Your task to perform on an android device: Add amazon basics triple a to the cart on target.com, then select checkout. Image 0: 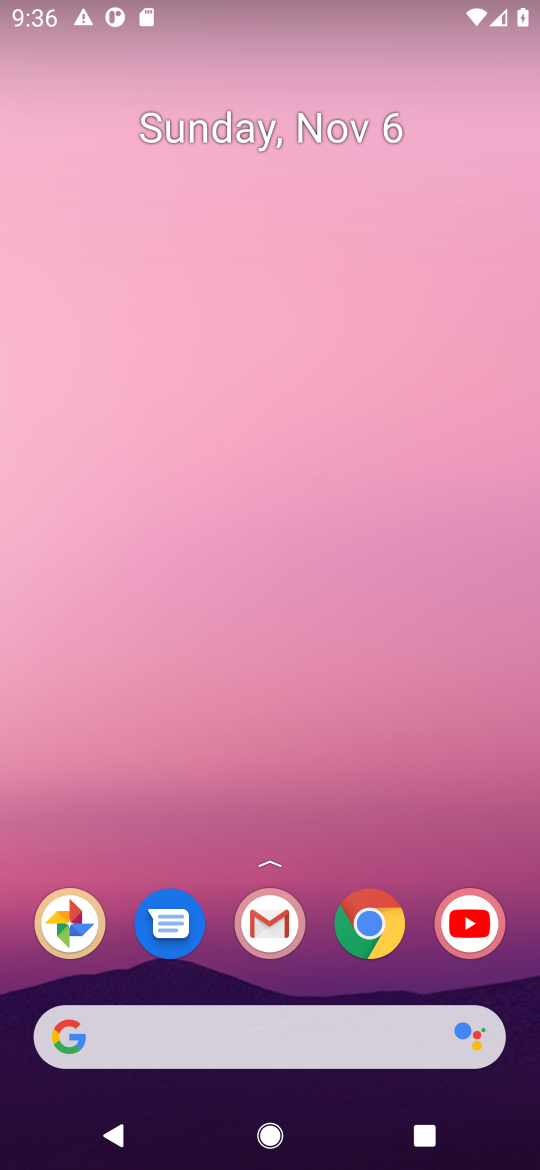
Step 0: click (377, 932)
Your task to perform on an android device: Add amazon basics triple a to the cart on target.com, then select checkout. Image 1: 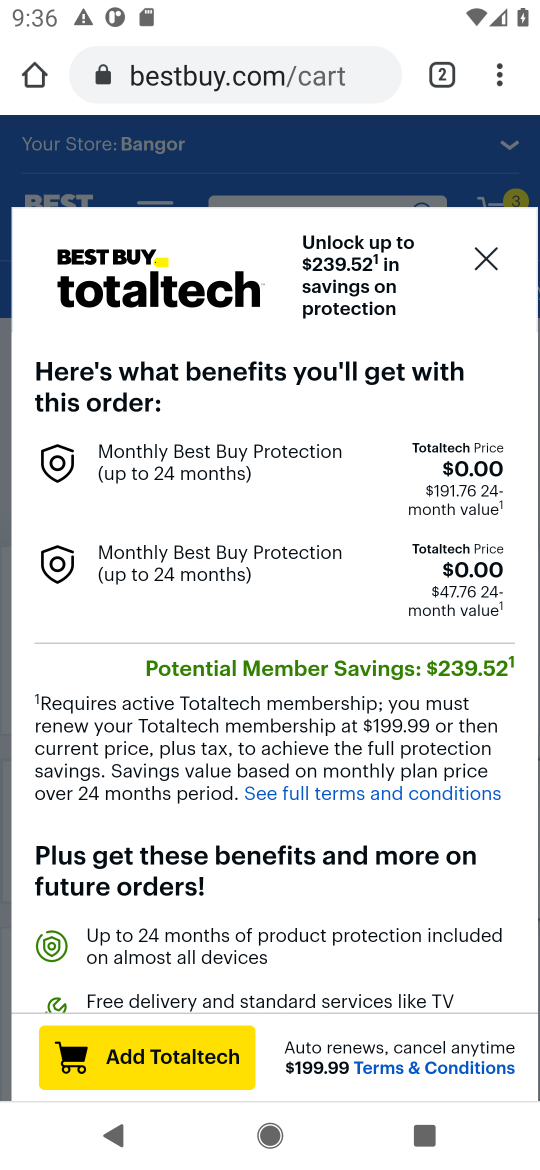
Step 1: click (203, 80)
Your task to perform on an android device: Add amazon basics triple a to the cart on target.com, then select checkout. Image 2: 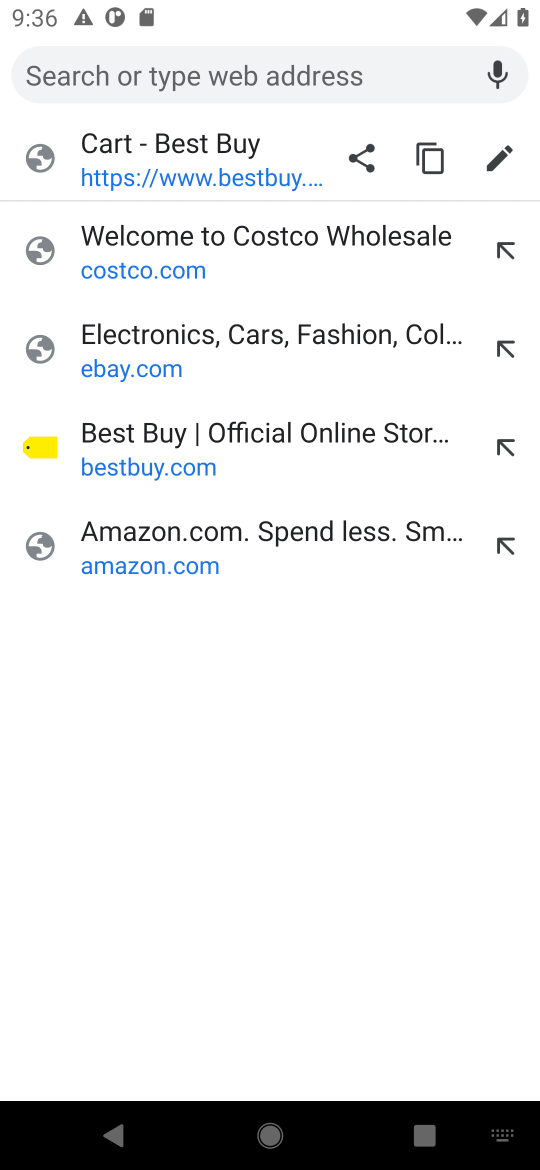
Step 2: type "target.com"
Your task to perform on an android device: Add amazon basics triple a to the cart on target.com, then select checkout. Image 3: 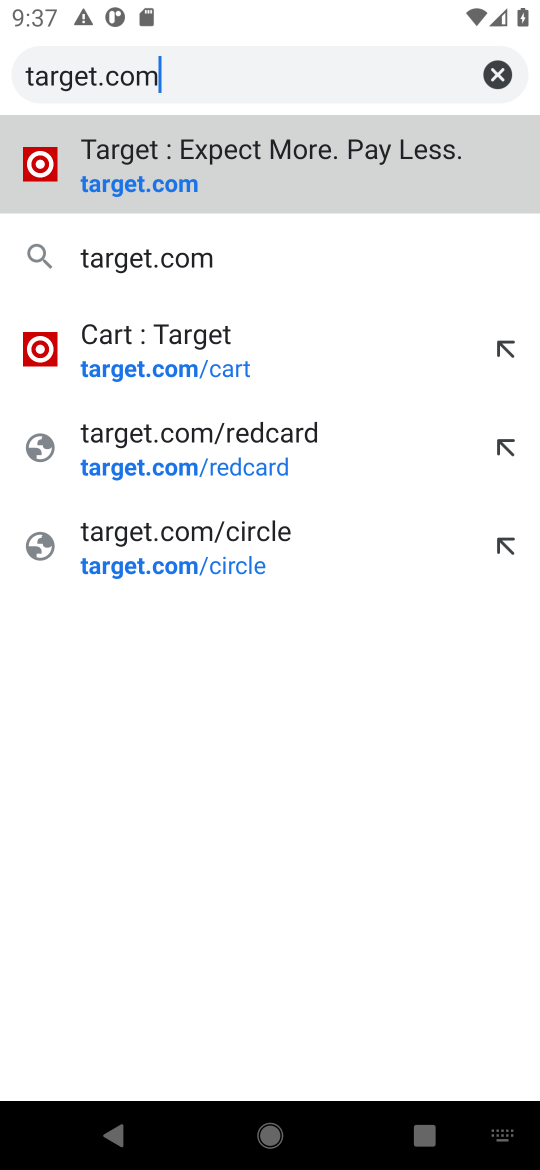
Step 3: click (133, 179)
Your task to perform on an android device: Add amazon basics triple a to the cart on target.com, then select checkout. Image 4: 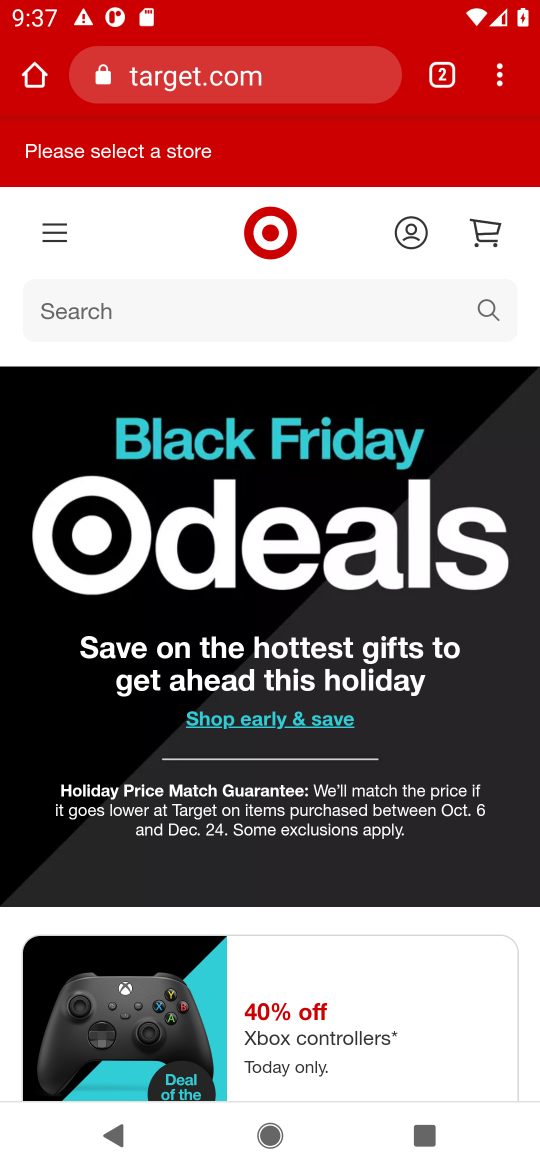
Step 4: click (488, 314)
Your task to perform on an android device: Add amazon basics triple a to the cart on target.com, then select checkout. Image 5: 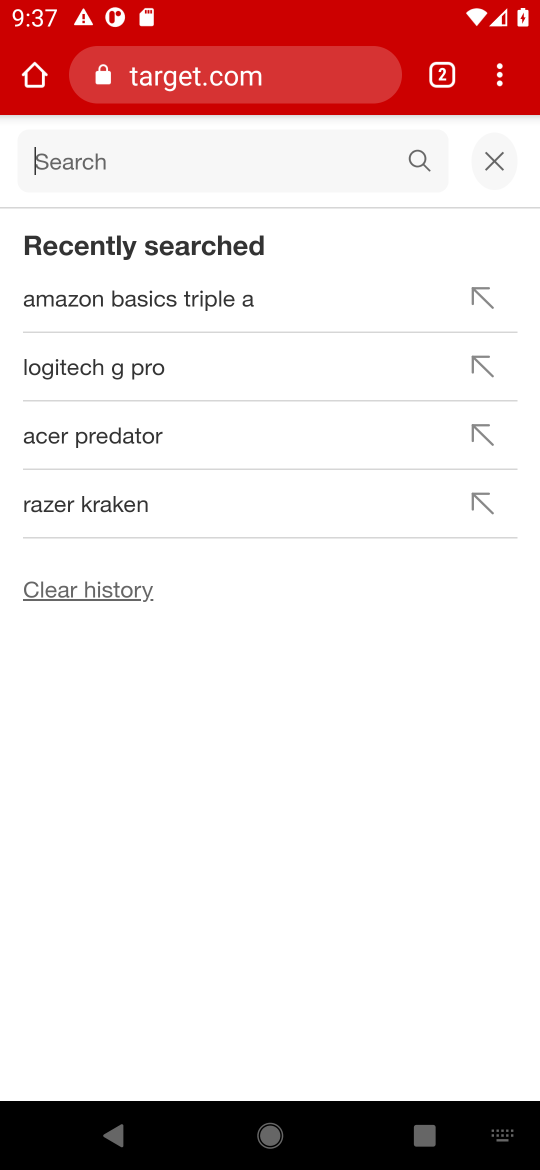
Step 5: type "amazon basics triple a"
Your task to perform on an android device: Add amazon basics triple a to the cart on target.com, then select checkout. Image 6: 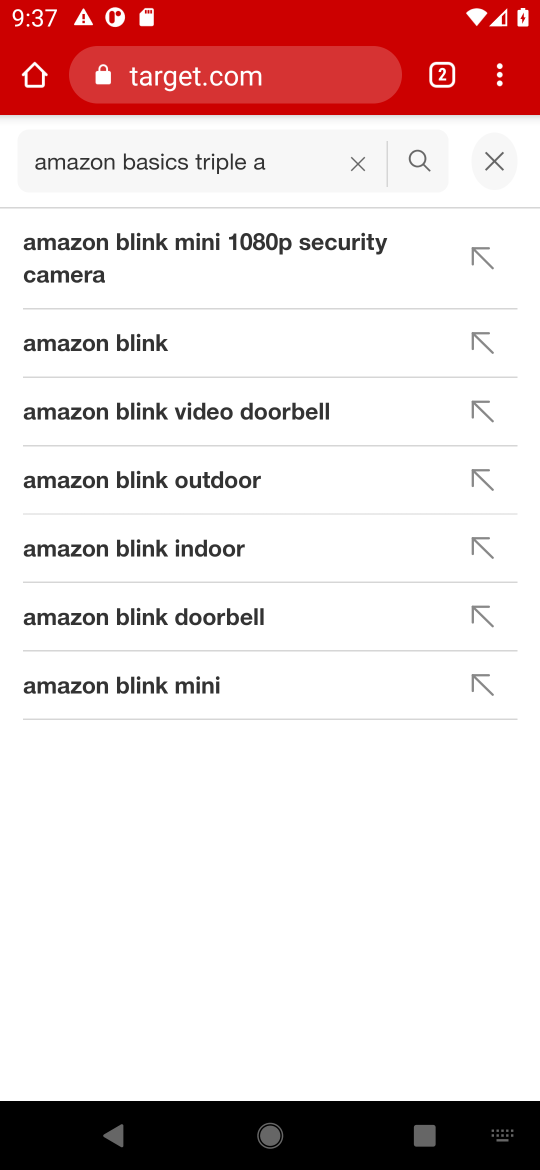
Step 6: click (419, 153)
Your task to perform on an android device: Add amazon basics triple a to the cart on target.com, then select checkout. Image 7: 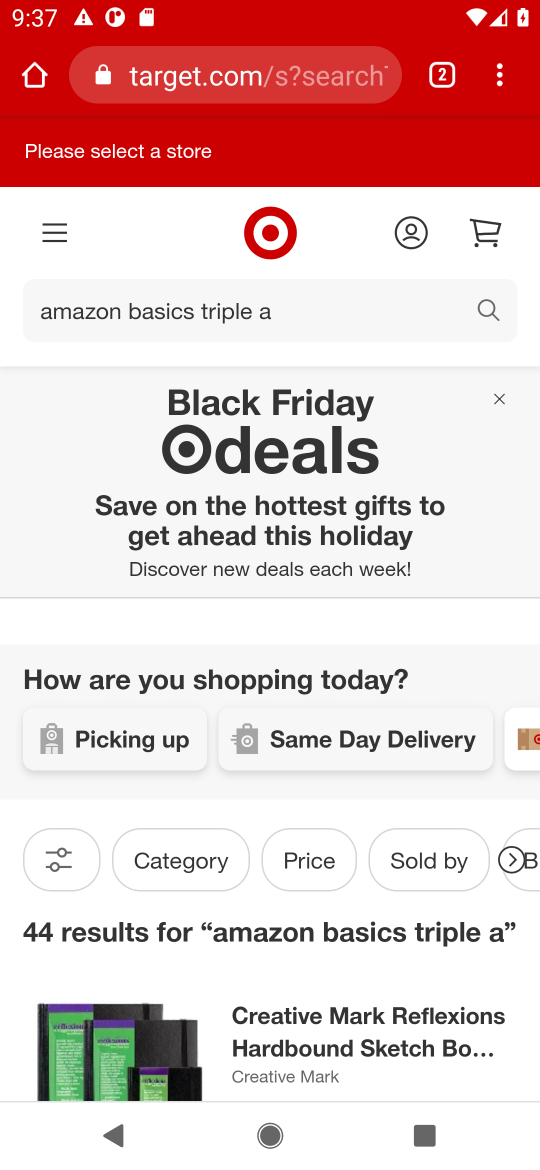
Step 7: task complete